Your task to perform on an android device: uninstall "Google Calendar" Image 0: 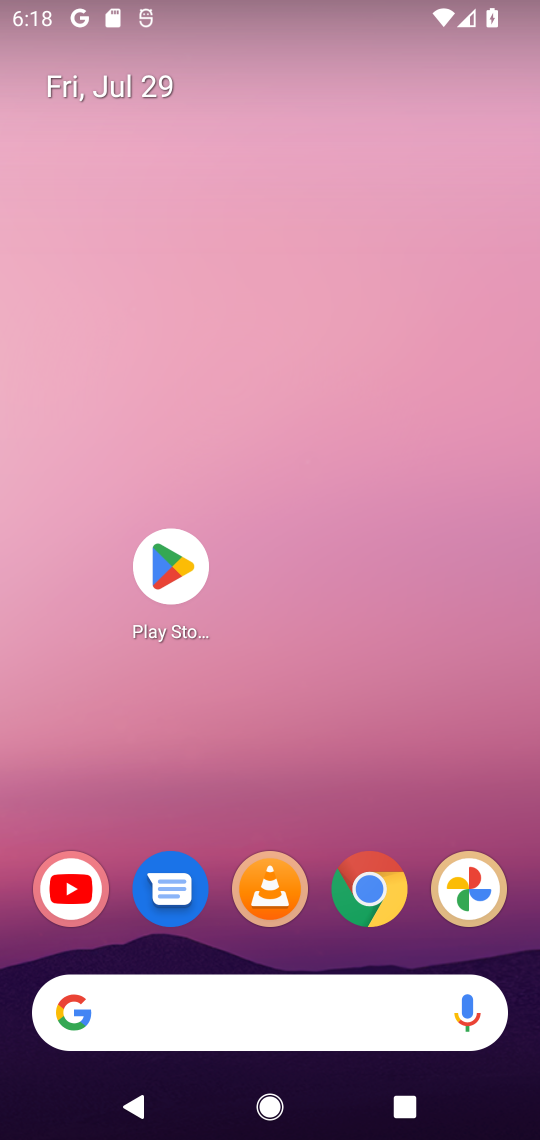
Step 0: press home button
Your task to perform on an android device: uninstall "Google Calendar" Image 1: 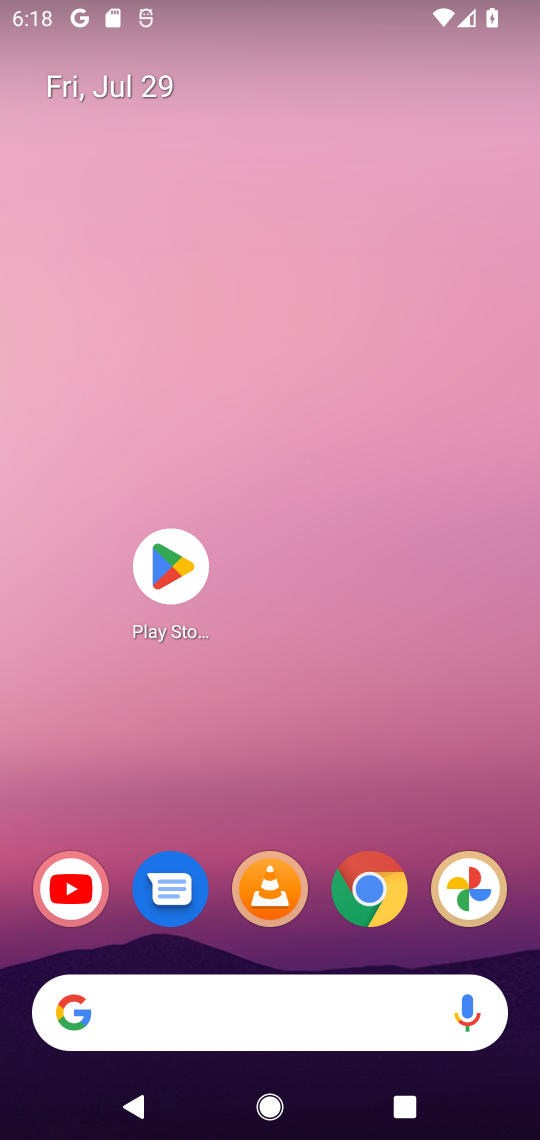
Step 1: click (172, 569)
Your task to perform on an android device: uninstall "Google Calendar" Image 2: 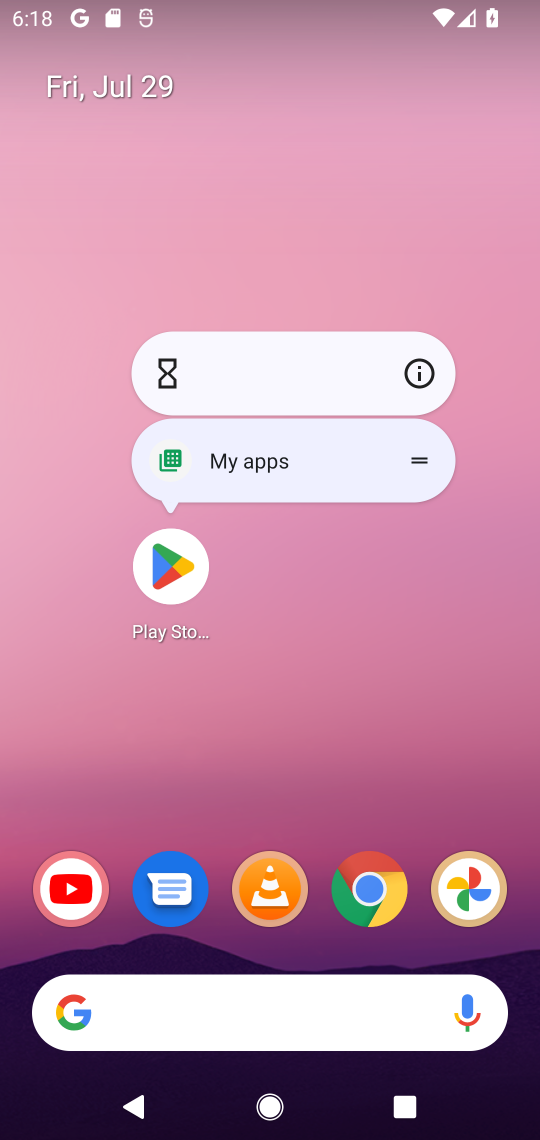
Step 2: click (178, 568)
Your task to perform on an android device: uninstall "Google Calendar" Image 3: 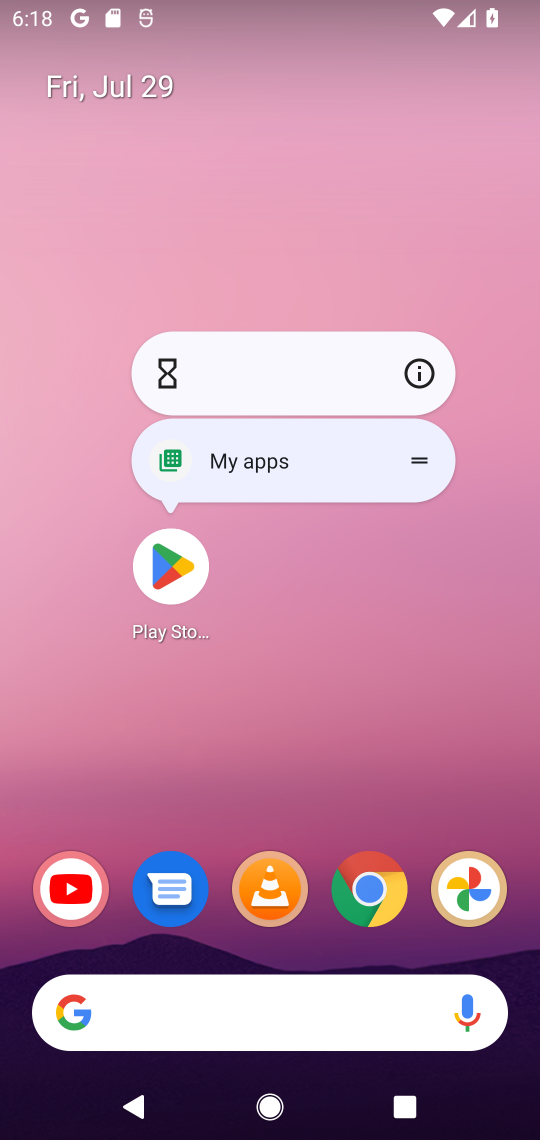
Step 3: click (195, 563)
Your task to perform on an android device: uninstall "Google Calendar" Image 4: 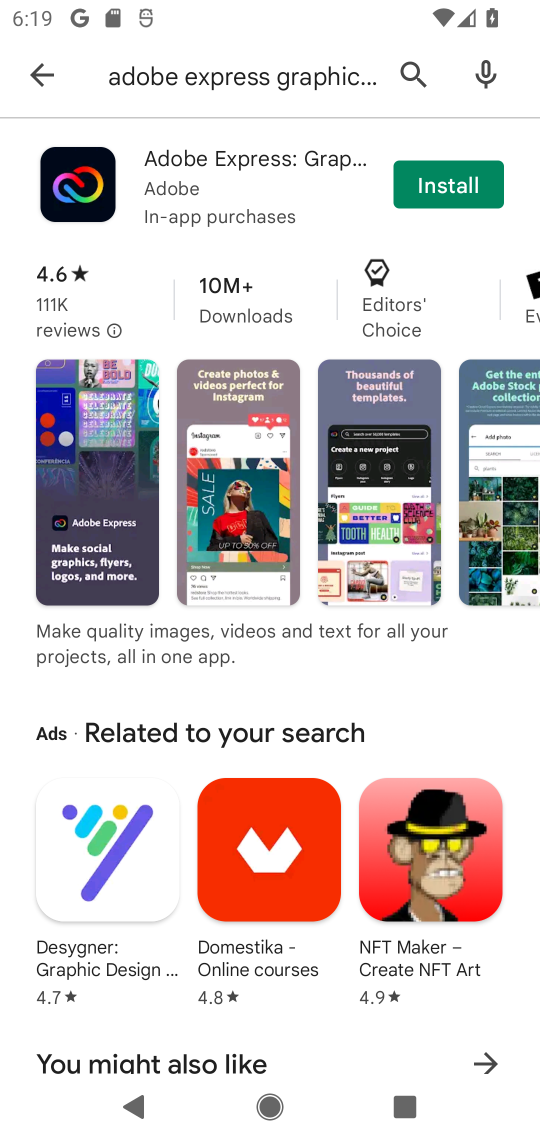
Step 4: click (412, 67)
Your task to perform on an android device: uninstall "Google Calendar" Image 5: 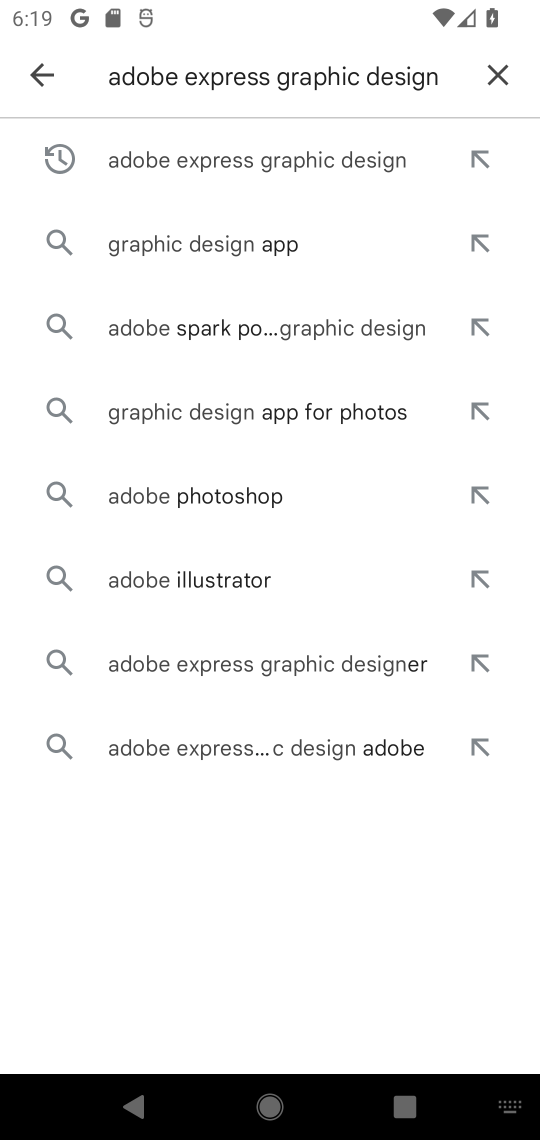
Step 5: click (497, 67)
Your task to perform on an android device: uninstall "Google Calendar" Image 6: 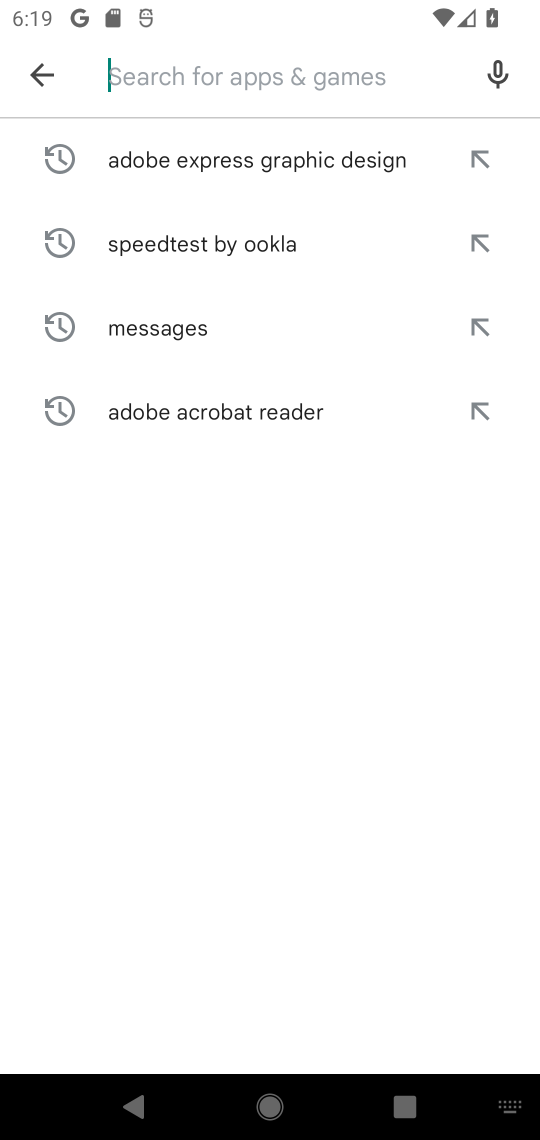
Step 6: type "Google Calendar"
Your task to perform on an android device: uninstall "Google Calendar" Image 7: 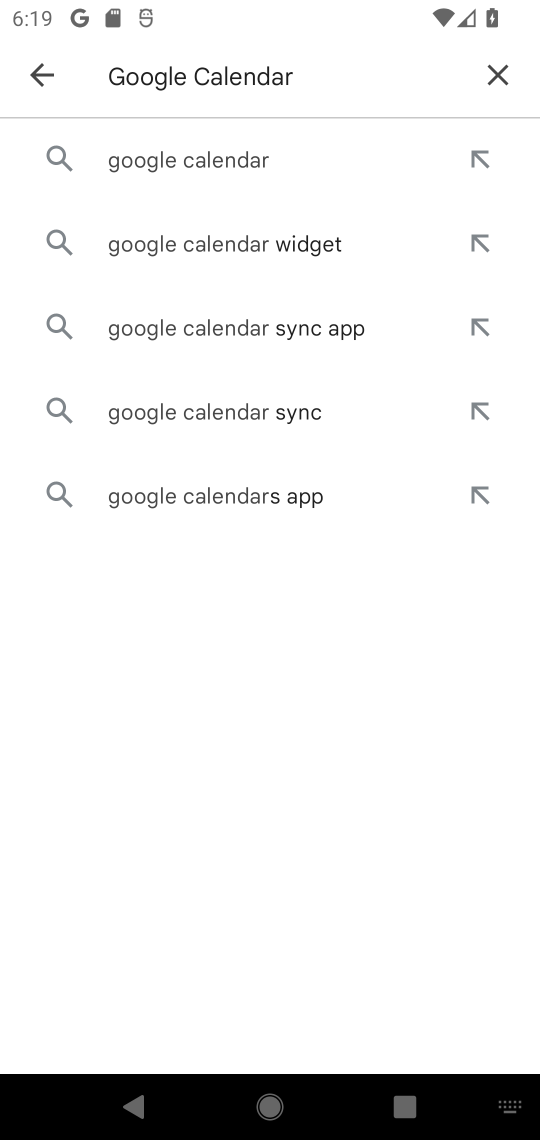
Step 7: click (189, 157)
Your task to perform on an android device: uninstall "Google Calendar" Image 8: 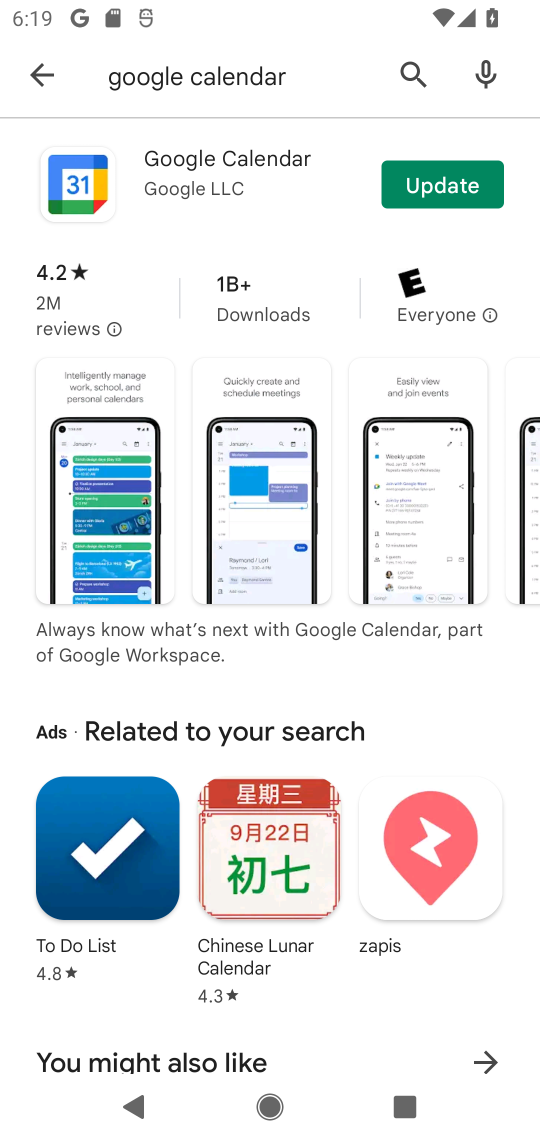
Step 8: task complete